Your task to perform on an android device: delete a single message in the gmail app Image 0: 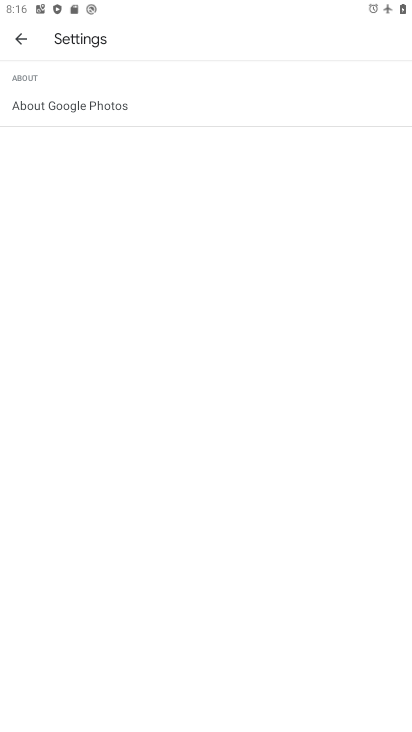
Step 0: press home button
Your task to perform on an android device: delete a single message in the gmail app Image 1: 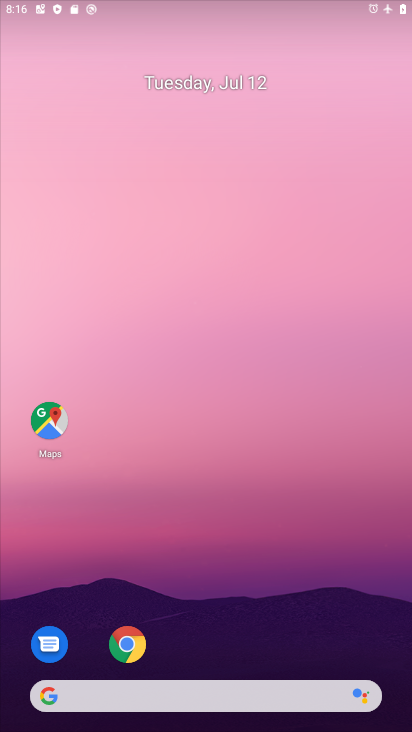
Step 1: drag from (208, 655) to (252, 348)
Your task to perform on an android device: delete a single message in the gmail app Image 2: 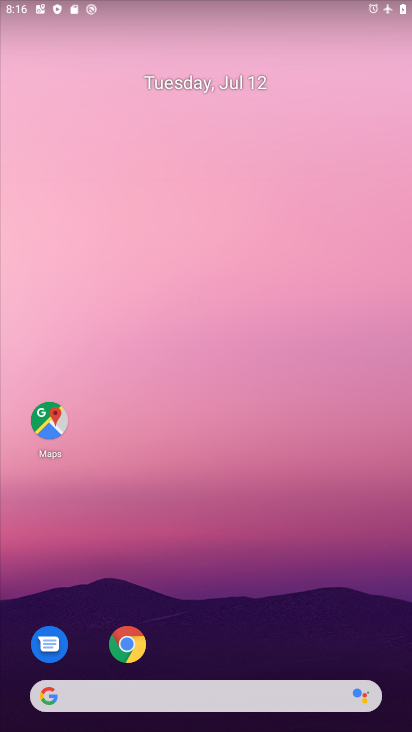
Step 2: drag from (348, 629) to (354, 129)
Your task to perform on an android device: delete a single message in the gmail app Image 3: 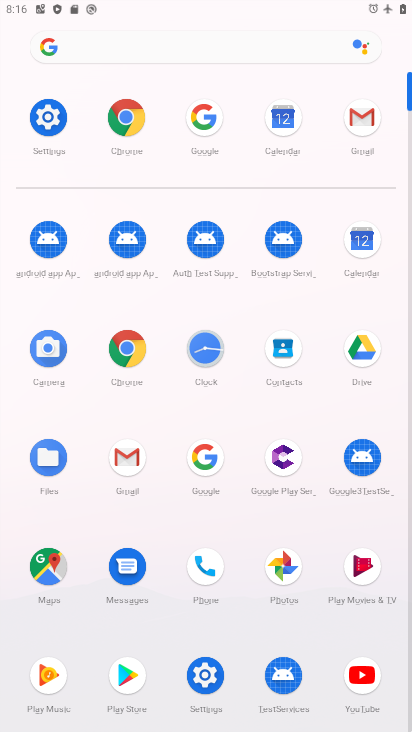
Step 3: click (356, 123)
Your task to perform on an android device: delete a single message in the gmail app Image 4: 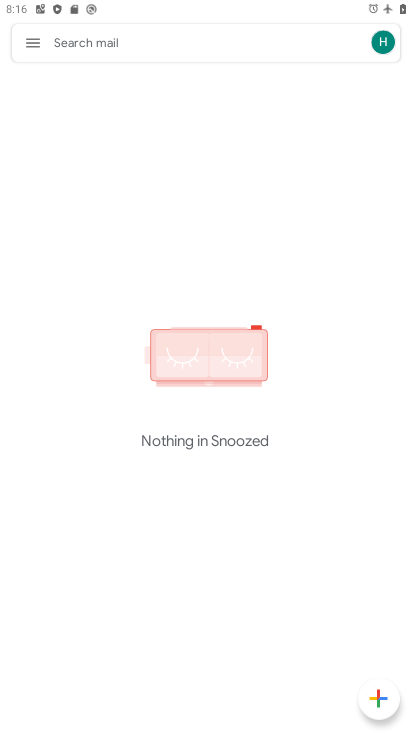
Step 4: click (32, 43)
Your task to perform on an android device: delete a single message in the gmail app Image 5: 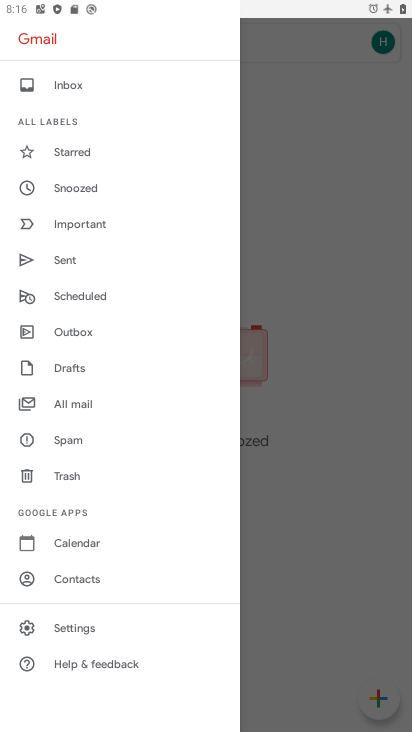
Step 5: click (91, 627)
Your task to perform on an android device: delete a single message in the gmail app Image 6: 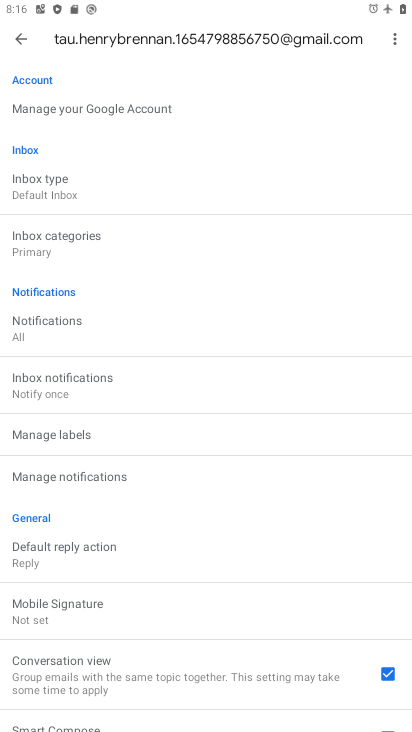
Step 6: task complete